Your task to perform on an android device: turn off wifi Image 0: 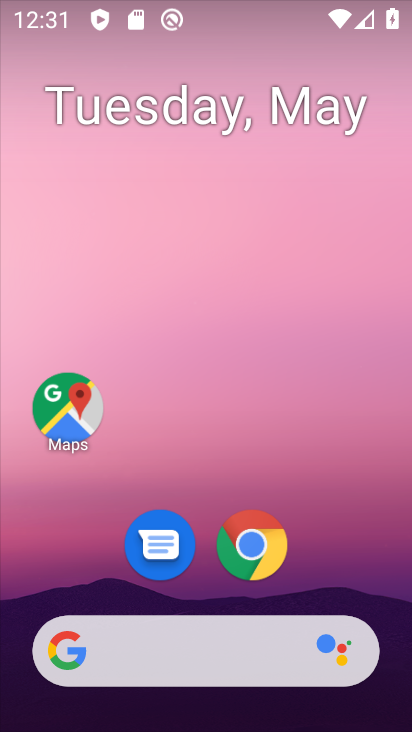
Step 0: drag from (384, 588) to (364, 150)
Your task to perform on an android device: turn off wifi Image 1: 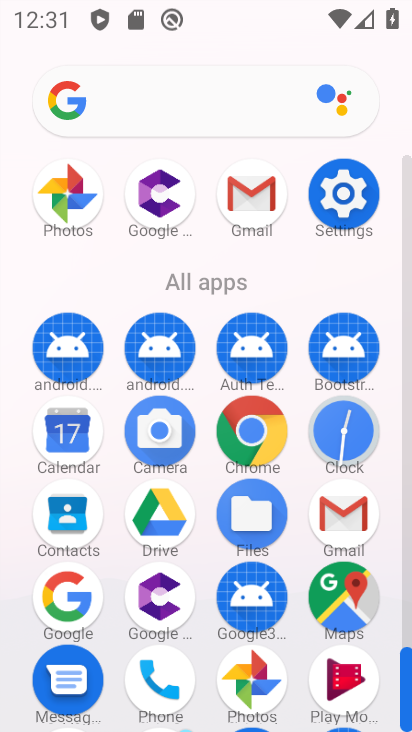
Step 1: click (346, 208)
Your task to perform on an android device: turn off wifi Image 2: 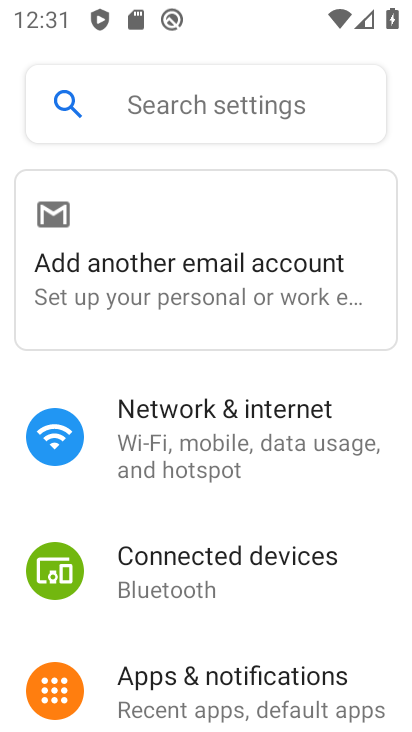
Step 2: click (295, 398)
Your task to perform on an android device: turn off wifi Image 3: 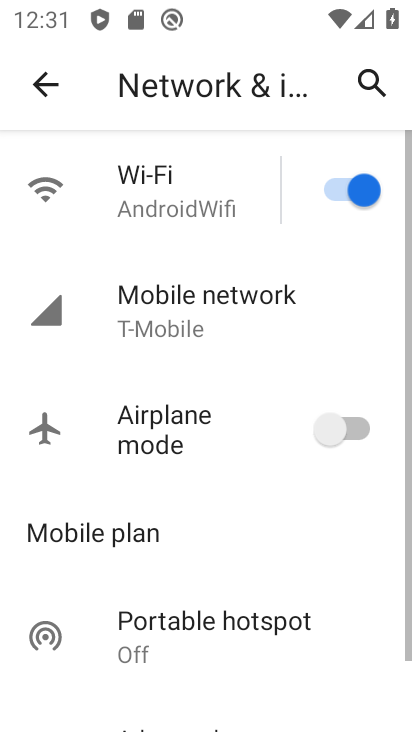
Step 3: click (146, 212)
Your task to perform on an android device: turn off wifi Image 4: 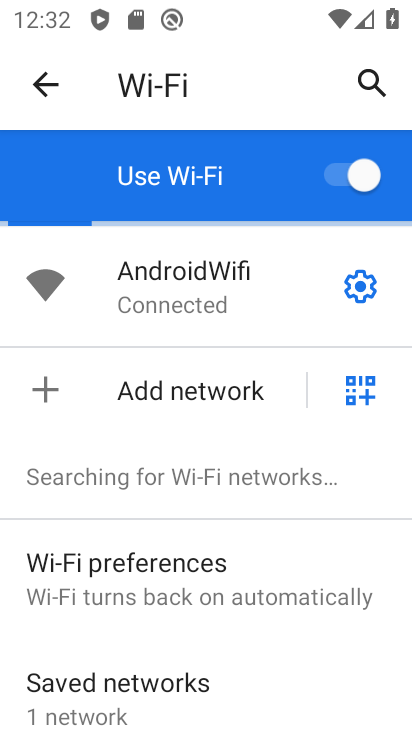
Step 4: click (356, 184)
Your task to perform on an android device: turn off wifi Image 5: 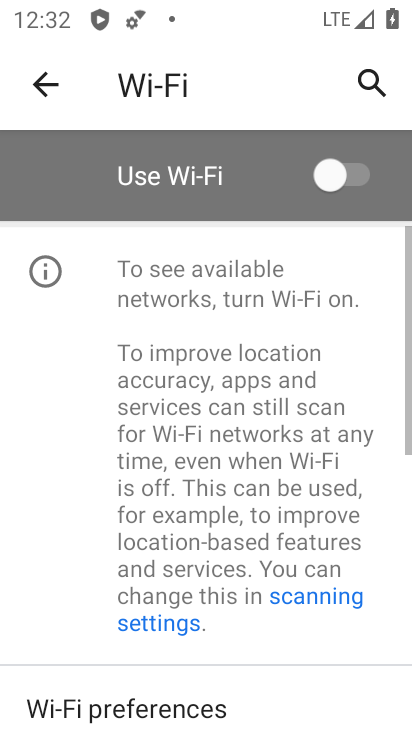
Step 5: task complete